Your task to perform on an android device: Go to Amazon Image 0: 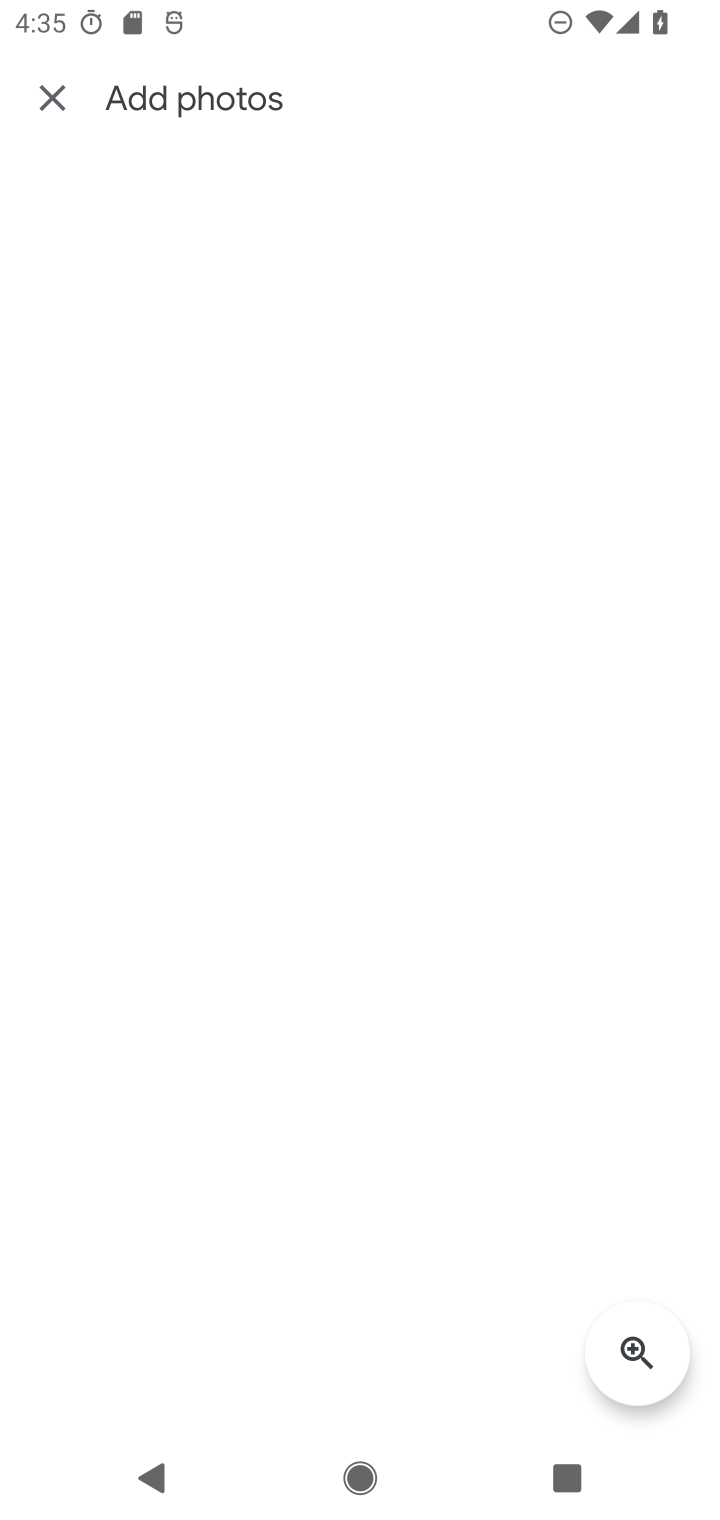
Step 0: press home button
Your task to perform on an android device: Go to Amazon Image 1: 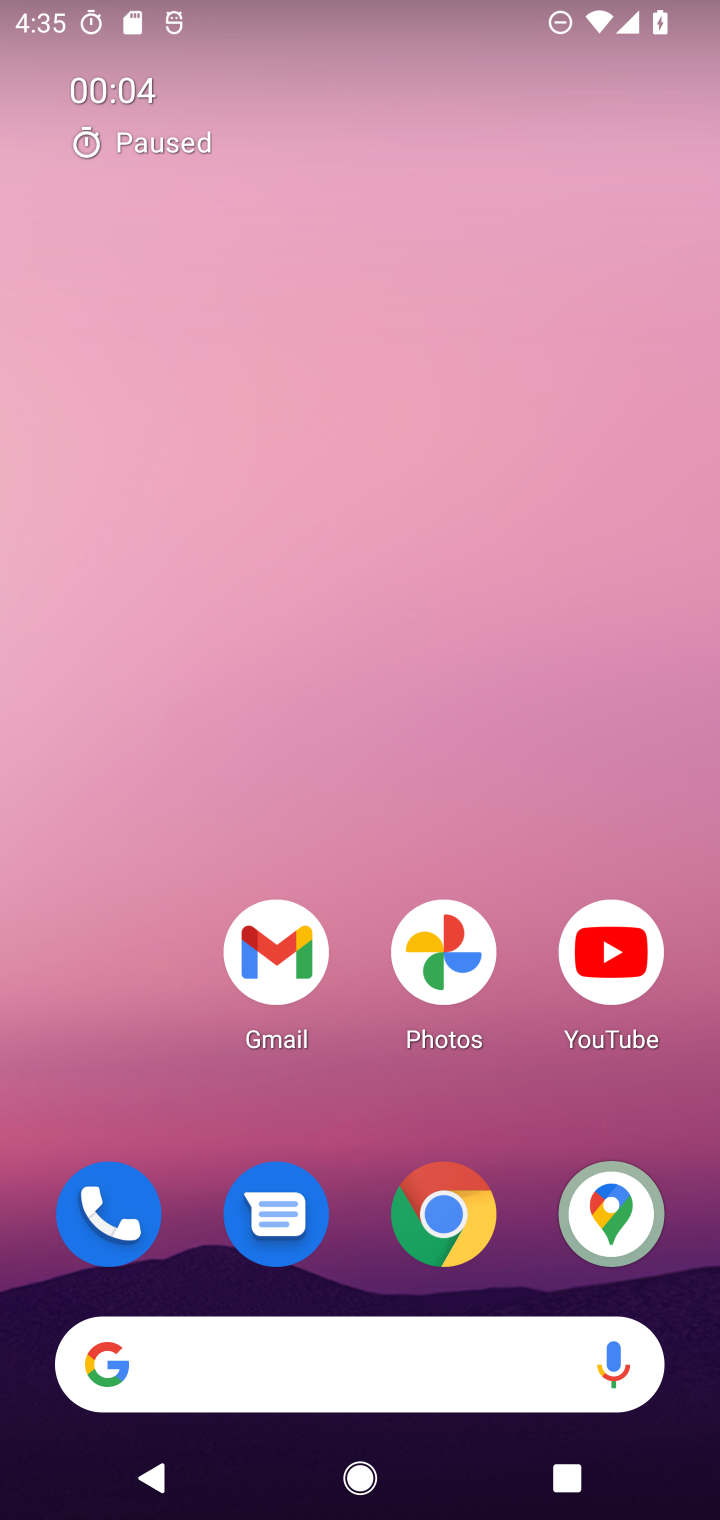
Step 1: click (443, 1217)
Your task to perform on an android device: Go to Amazon Image 2: 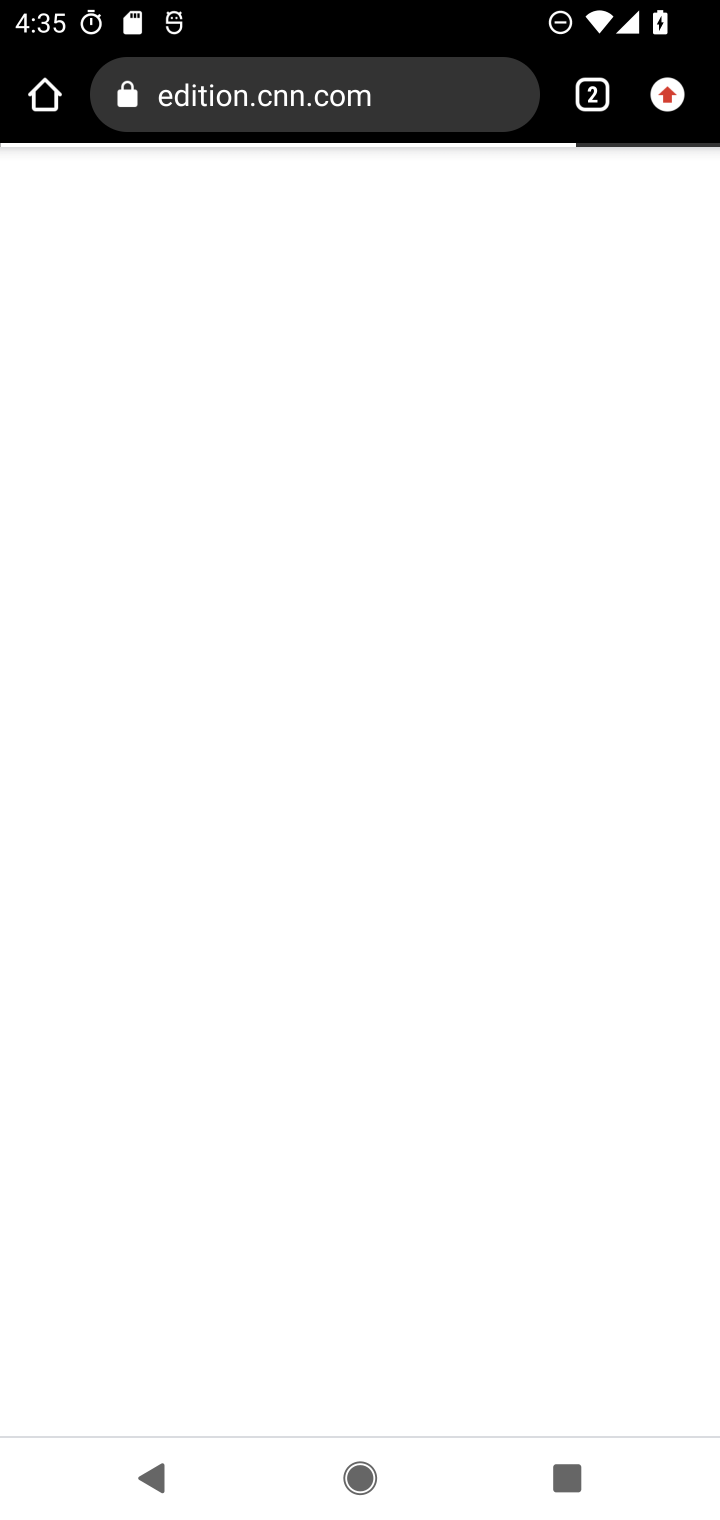
Step 2: click (236, 89)
Your task to perform on an android device: Go to Amazon Image 3: 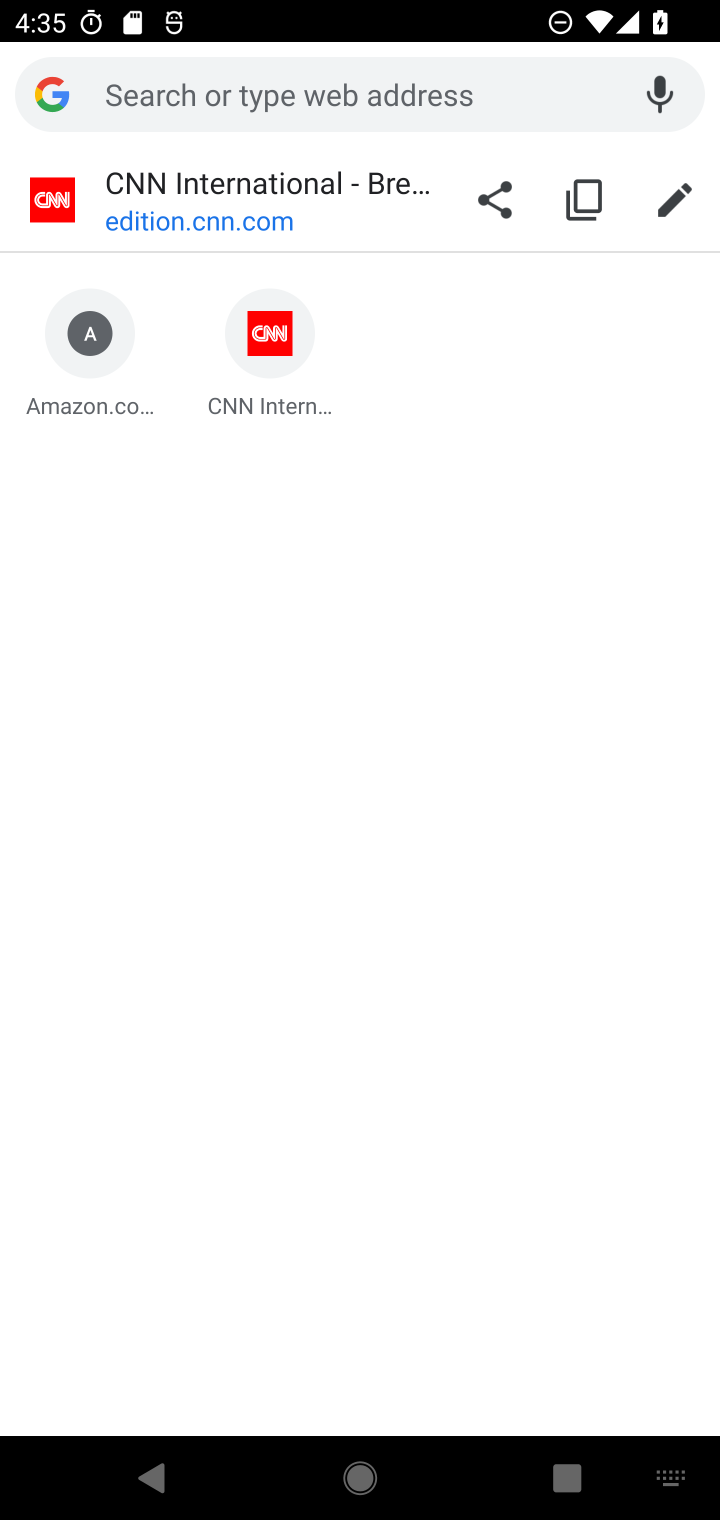
Step 3: type "www.amazon.com"
Your task to perform on an android device: Go to Amazon Image 4: 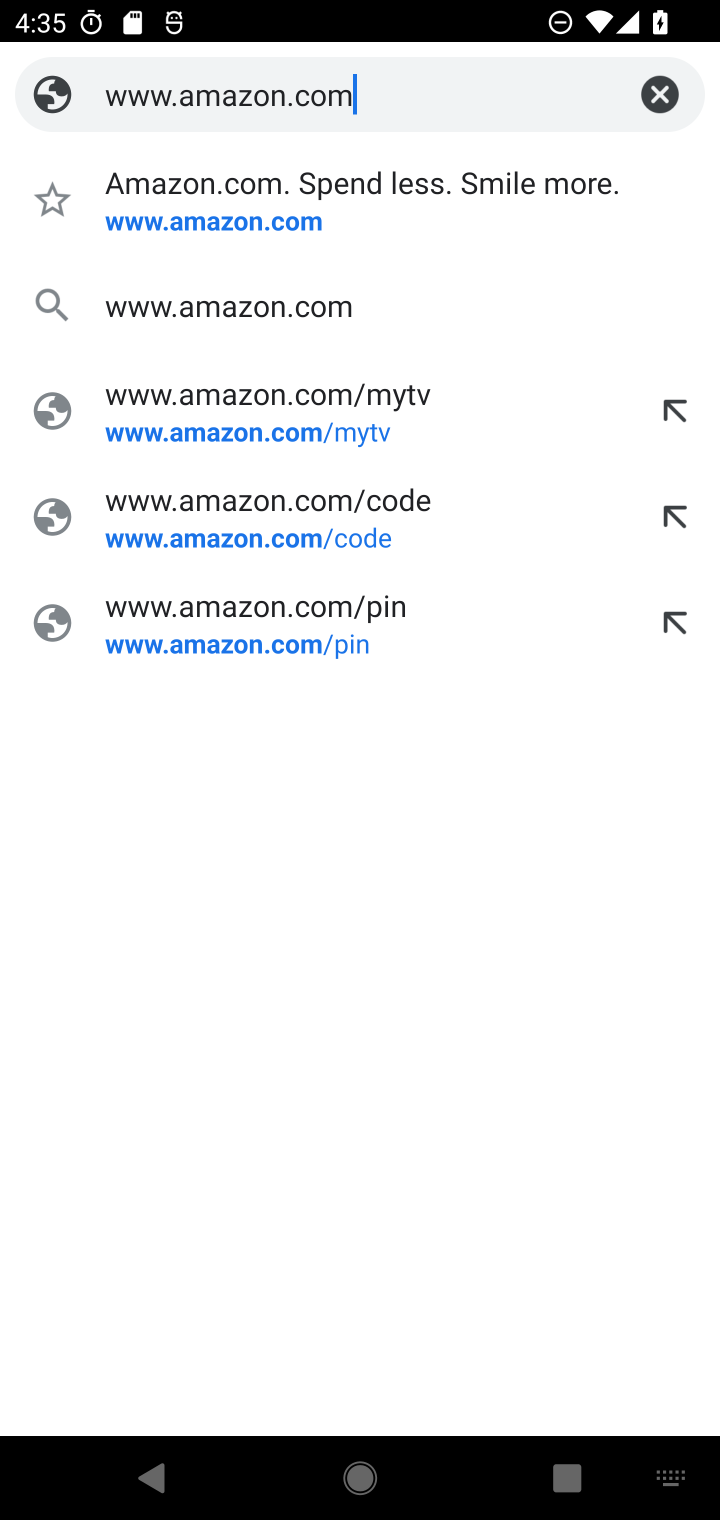
Step 4: click (181, 218)
Your task to perform on an android device: Go to Amazon Image 5: 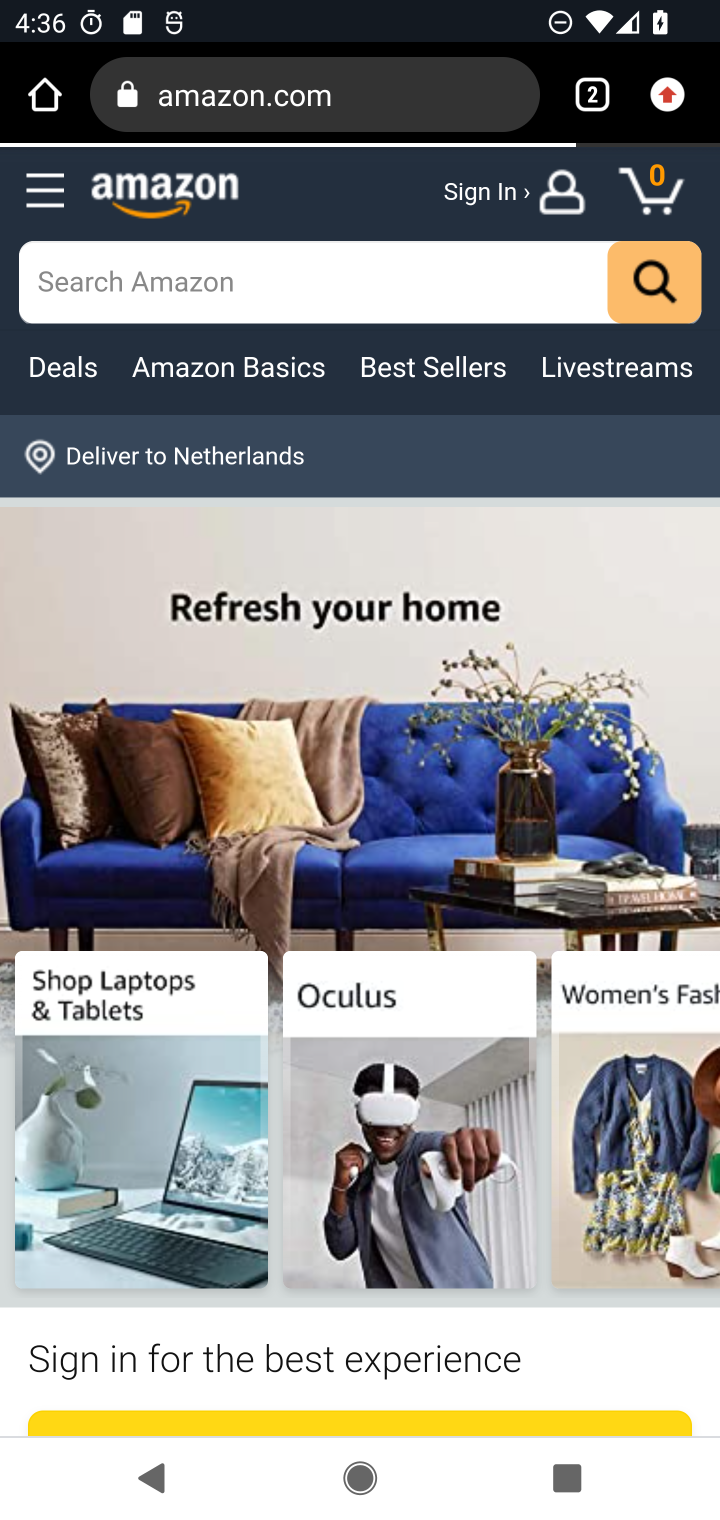
Step 5: task complete